Your task to perform on an android device: turn off data saver in the chrome app Image 0: 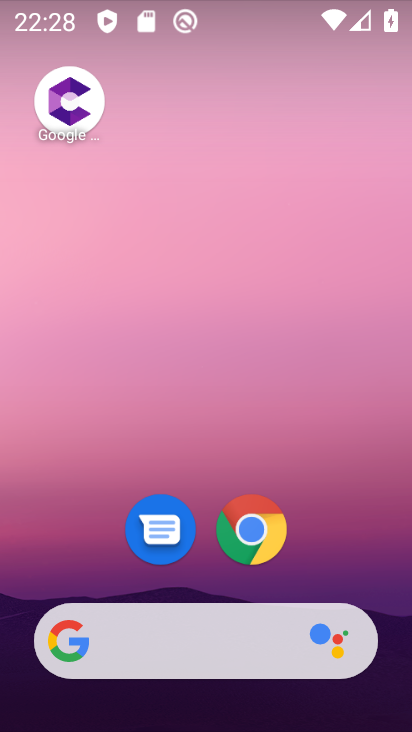
Step 0: click (268, 556)
Your task to perform on an android device: turn off data saver in the chrome app Image 1: 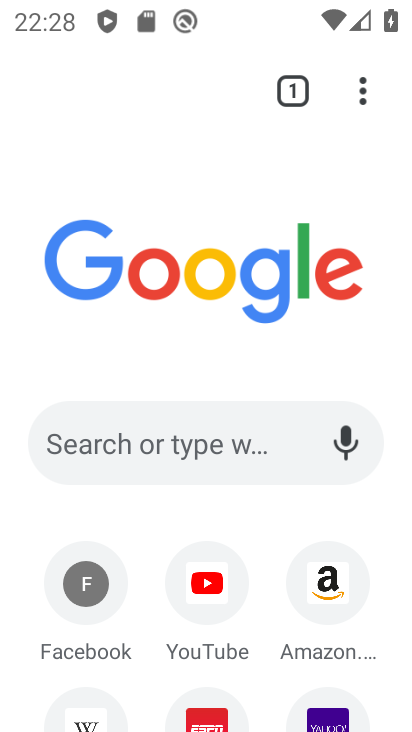
Step 1: click (366, 108)
Your task to perform on an android device: turn off data saver in the chrome app Image 2: 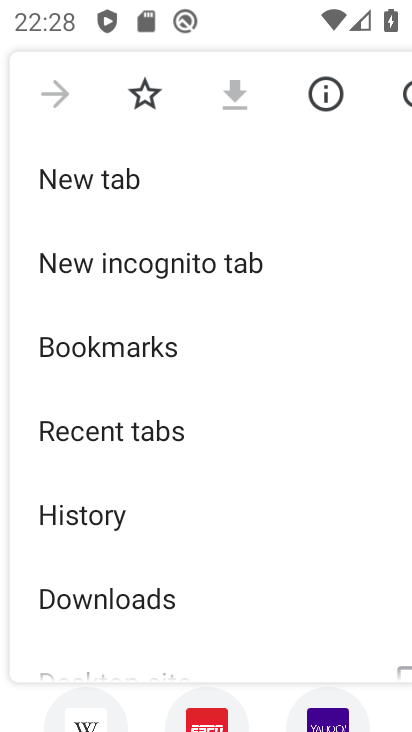
Step 2: drag from (196, 642) to (249, 353)
Your task to perform on an android device: turn off data saver in the chrome app Image 3: 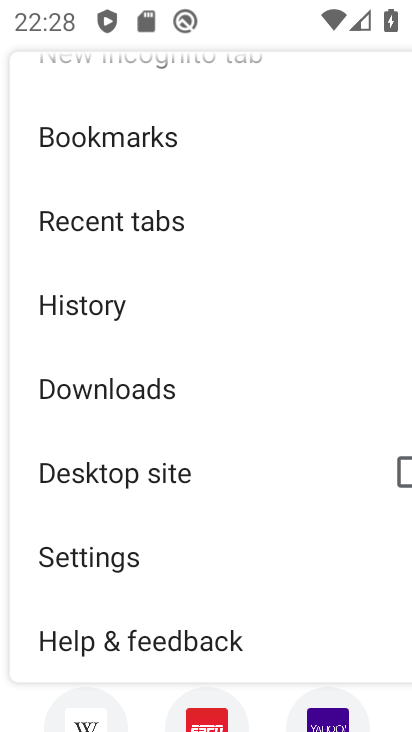
Step 3: click (149, 573)
Your task to perform on an android device: turn off data saver in the chrome app Image 4: 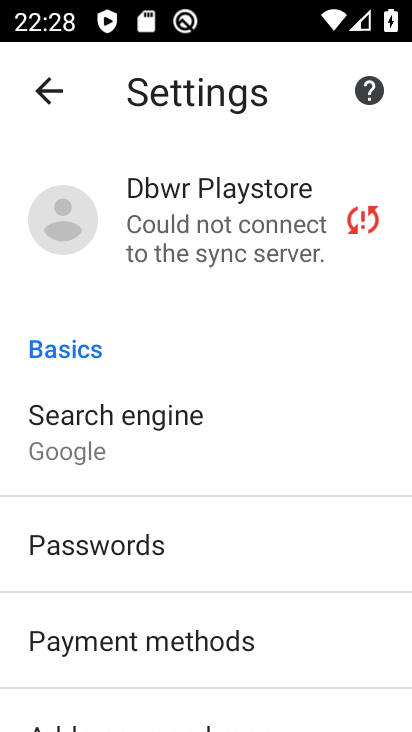
Step 4: drag from (147, 631) to (204, 137)
Your task to perform on an android device: turn off data saver in the chrome app Image 5: 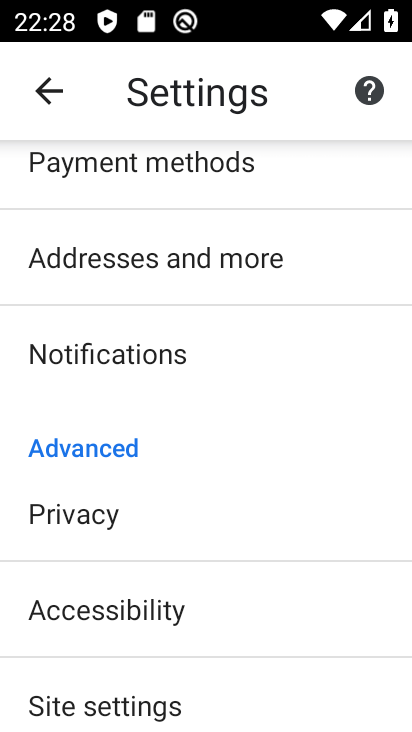
Step 5: drag from (190, 608) to (236, 235)
Your task to perform on an android device: turn off data saver in the chrome app Image 6: 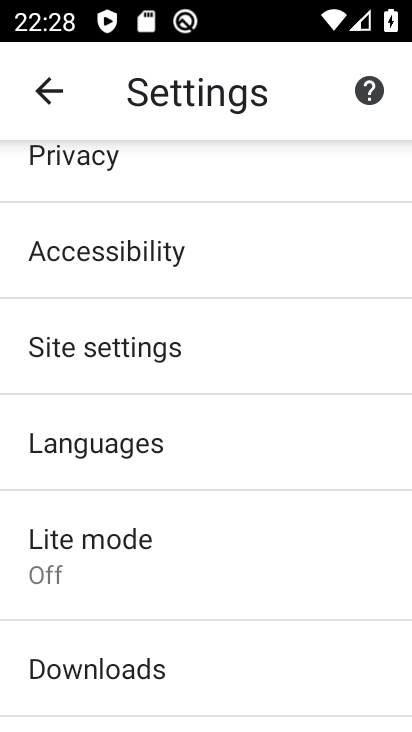
Step 6: click (163, 594)
Your task to perform on an android device: turn off data saver in the chrome app Image 7: 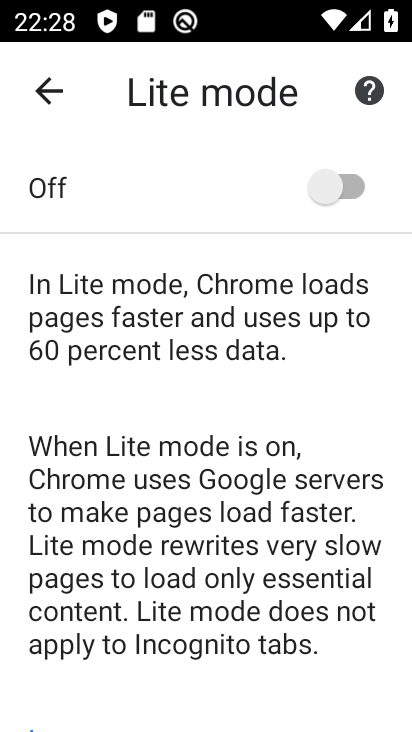
Step 7: task complete